Your task to perform on an android device: Open internet settings Image 0: 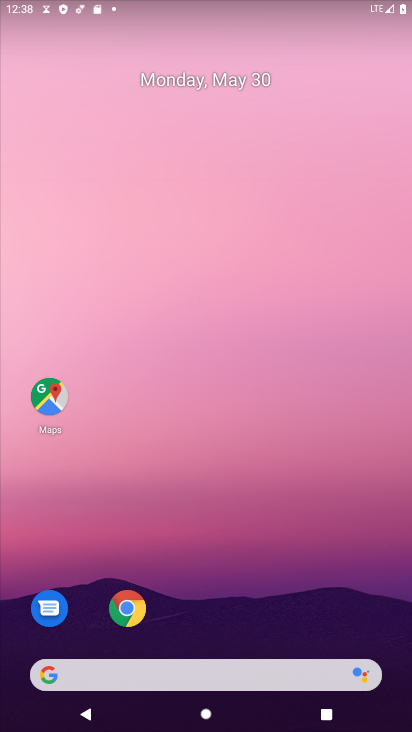
Step 0: drag from (228, 624) to (330, 26)
Your task to perform on an android device: Open internet settings Image 1: 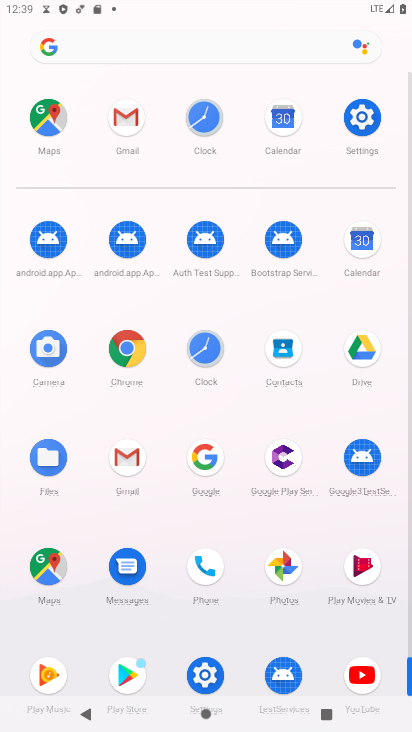
Step 1: click (376, 128)
Your task to perform on an android device: Open internet settings Image 2: 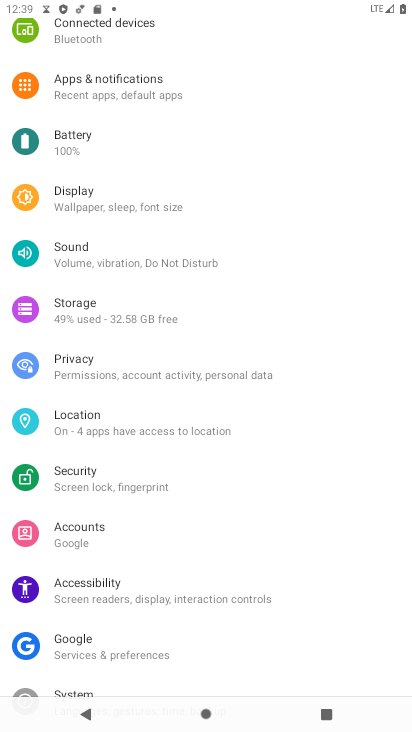
Step 2: drag from (169, 151) to (183, 592)
Your task to perform on an android device: Open internet settings Image 3: 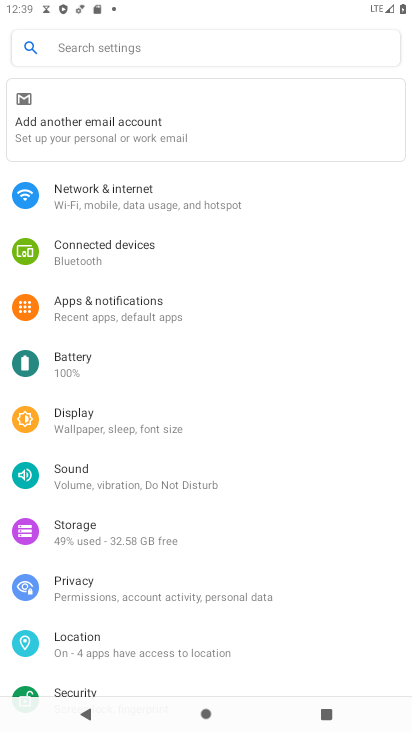
Step 3: click (231, 203)
Your task to perform on an android device: Open internet settings Image 4: 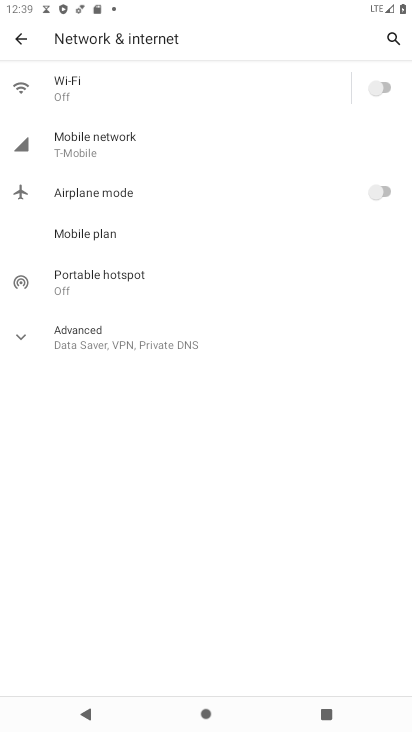
Step 4: click (179, 141)
Your task to perform on an android device: Open internet settings Image 5: 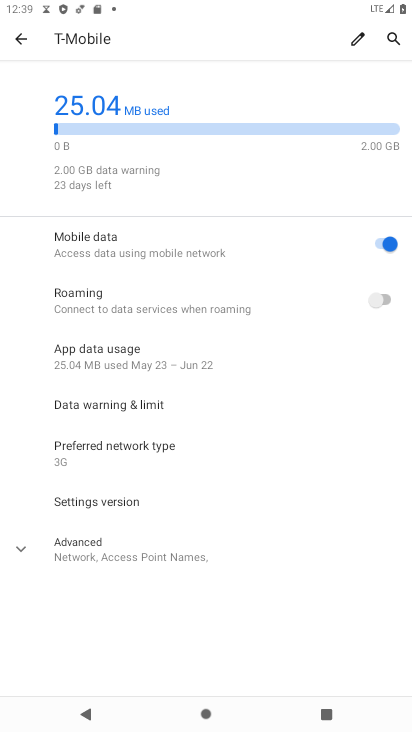
Step 5: task complete